Your task to perform on an android device: find snoozed emails in the gmail app Image 0: 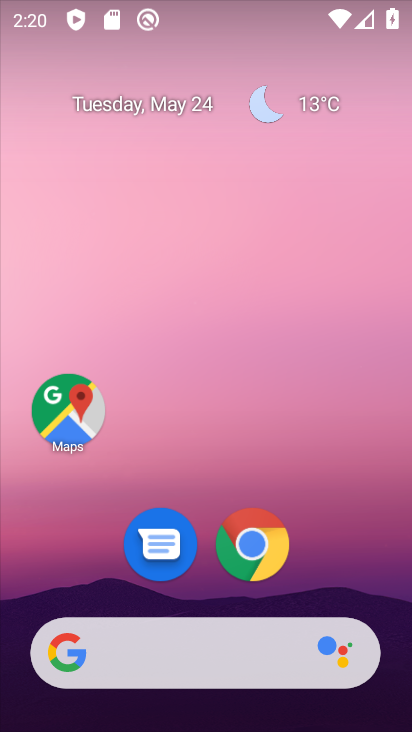
Step 0: drag from (361, 534) to (394, 122)
Your task to perform on an android device: find snoozed emails in the gmail app Image 1: 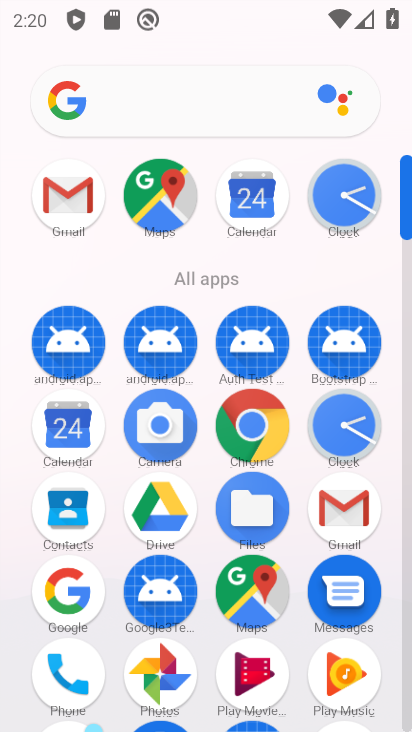
Step 1: click (54, 176)
Your task to perform on an android device: find snoozed emails in the gmail app Image 2: 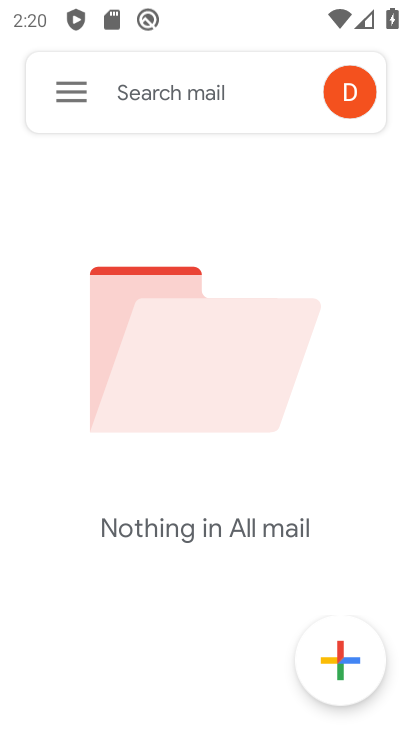
Step 2: click (70, 97)
Your task to perform on an android device: find snoozed emails in the gmail app Image 3: 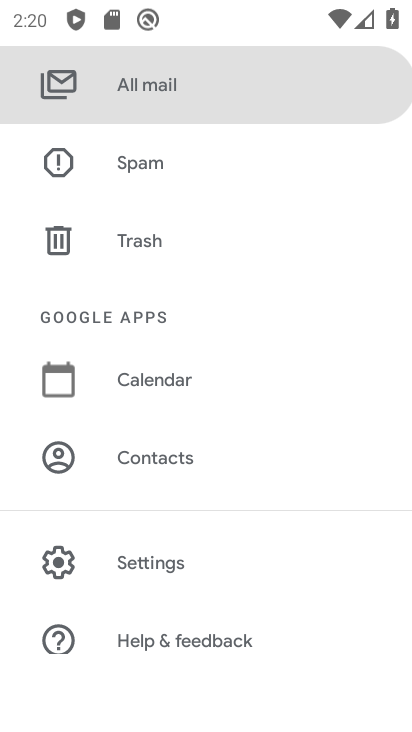
Step 3: drag from (130, 244) to (163, 567)
Your task to perform on an android device: find snoozed emails in the gmail app Image 4: 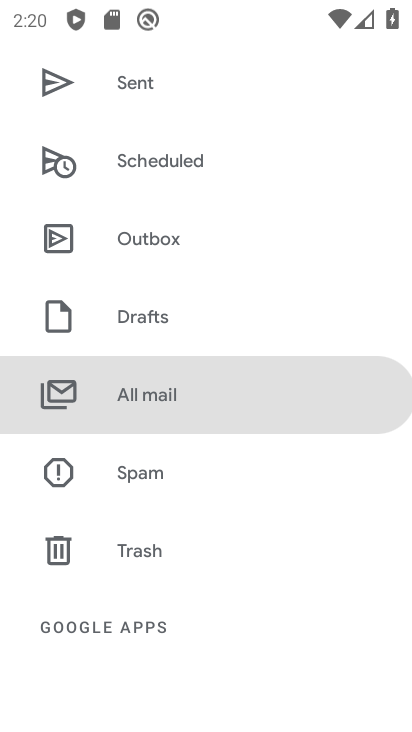
Step 4: drag from (238, 205) to (183, 631)
Your task to perform on an android device: find snoozed emails in the gmail app Image 5: 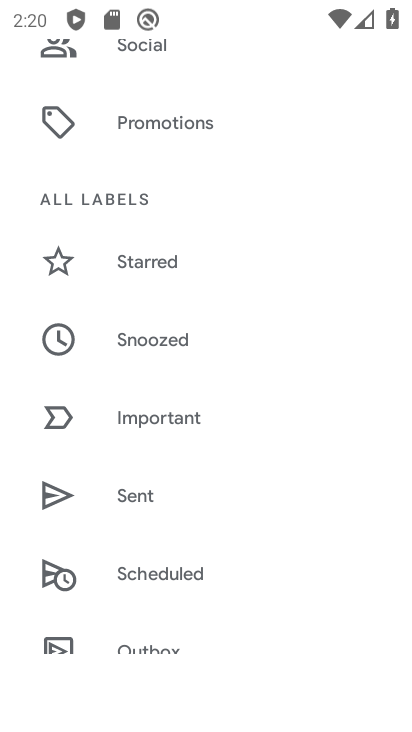
Step 5: click (173, 335)
Your task to perform on an android device: find snoozed emails in the gmail app Image 6: 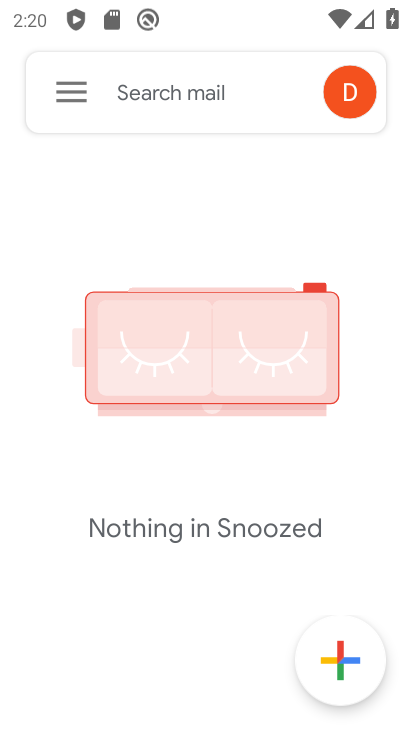
Step 6: task complete